Your task to perform on an android device: turn notification dots off Image 0: 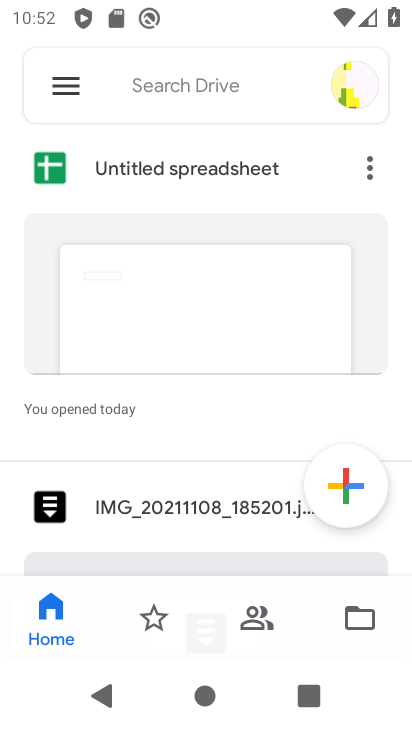
Step 0: click (385, 411)
Your task to perform on an android device: turn notification dots off Image 1: 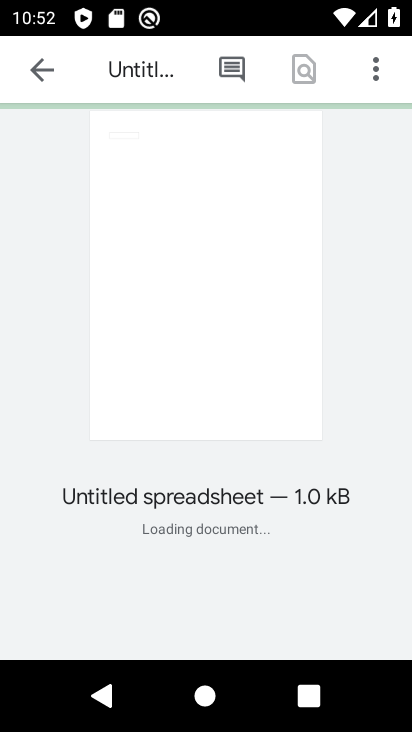
Step 1: press home button
Your task to perform on an android device: turn notification dots off Image 2: 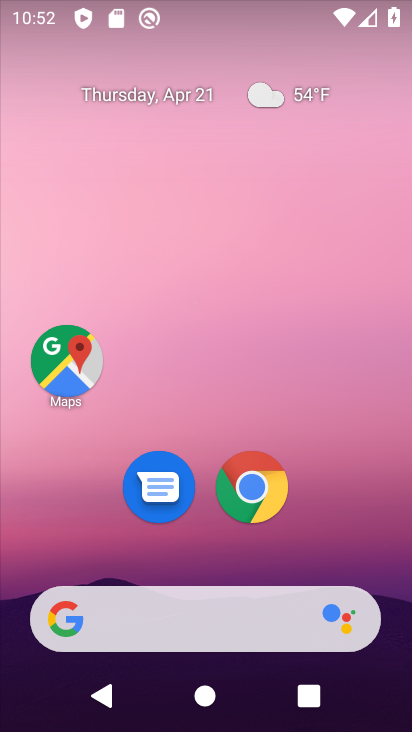
Step 2: drag from (351, 516) to (329, 136)
Your task to perform on an android device: turn notification dots off Image 3: 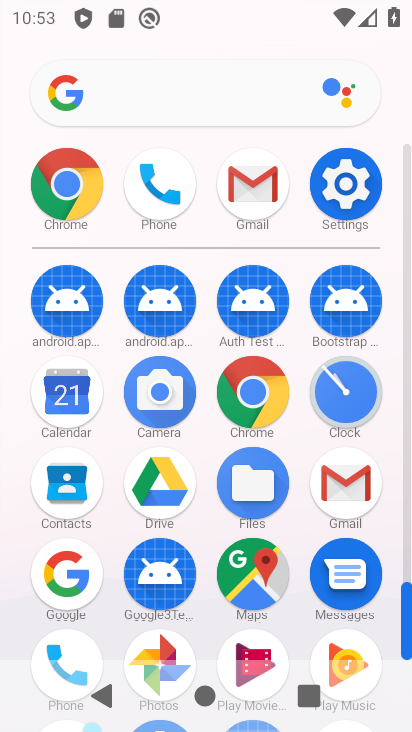
Step 3: click (364, 192)
Your task to perform on an android device: turn notification dots off Image 4: 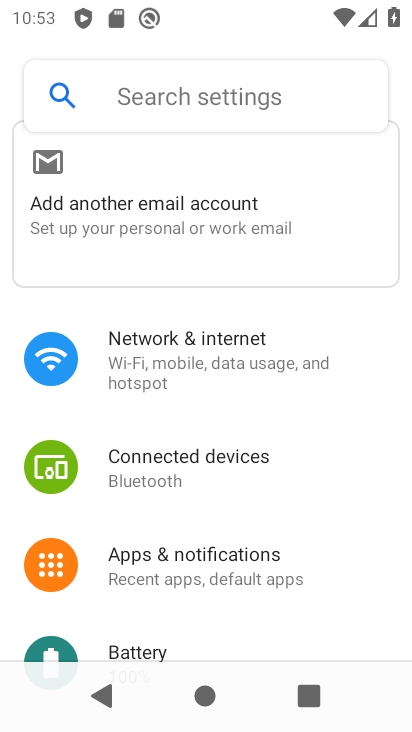
Step 4: drag from (313, 527) to (336, 255)
Your task to perform on an android device: turn notification dots off Image 5: 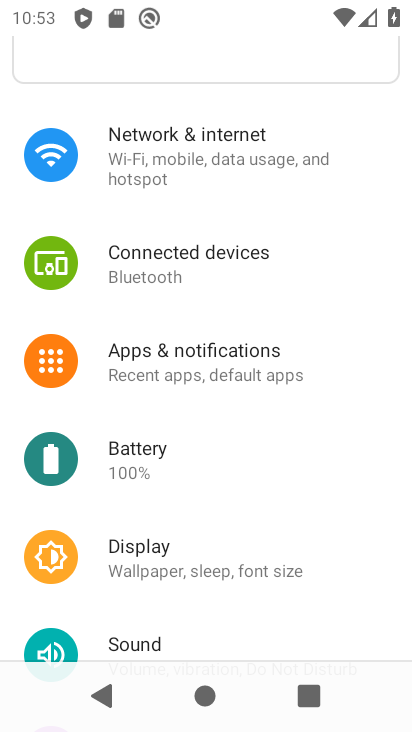
Step 5: click (239, 381)
Your task to perform on an android device: turn notification dots off Image 6: 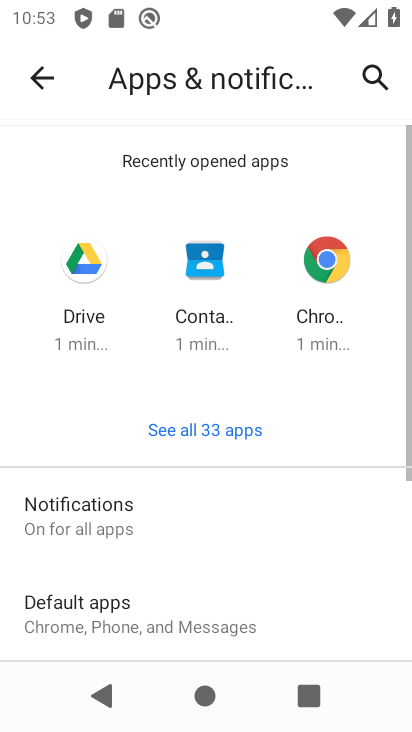
Step 6: drag from (286, 558) to (306, 232)
Your task to perform on an android device: turn notification dots off Image 7: 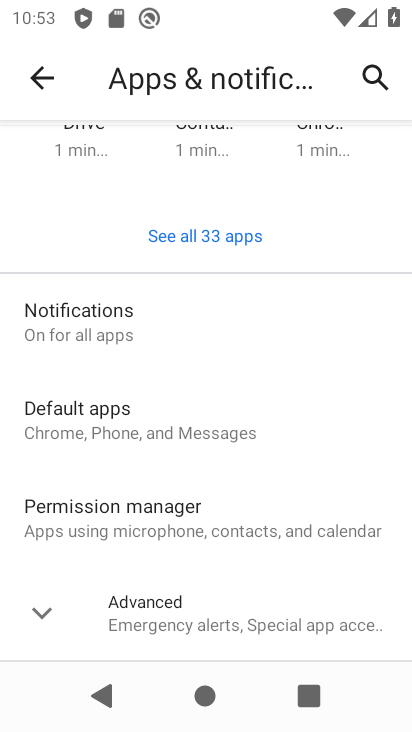
Step 7: click (98, 310)
Your task to perform on an android device: turn notification dots off Image 8: 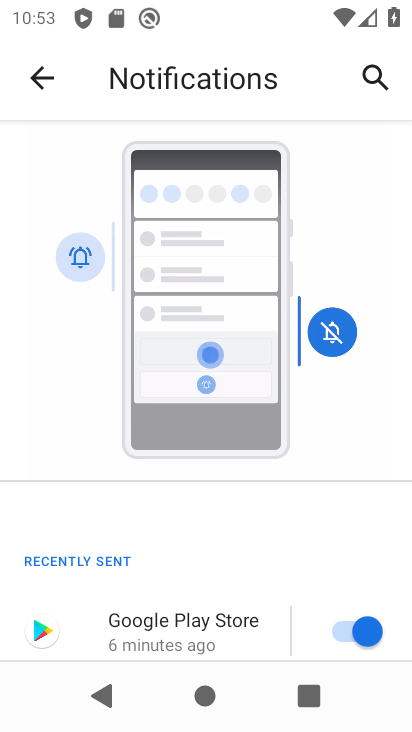
Step 8: drag from (180, 542) to (305, 221)
Your task to perform on an android device: turn notification dots off Image 9: 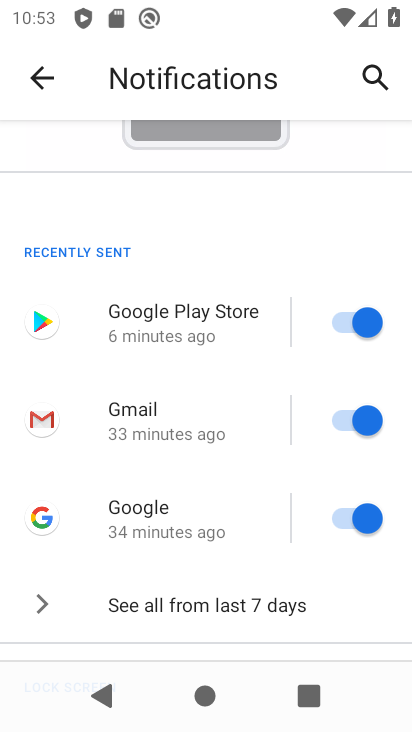
Step 9: drag from (222, 617) to (265, 270)
Your task to perform on an android device: turn notification dots off Image 10: 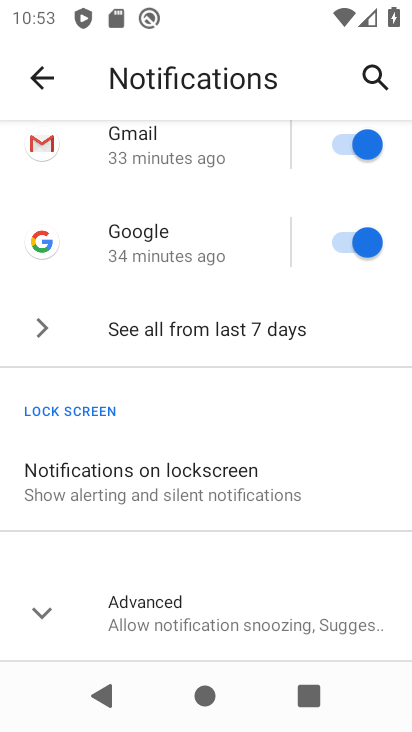
Step 10: drag from (208, 591) to (256, 390)
Your task to perform on an android device: turn notification dots off Image 11: 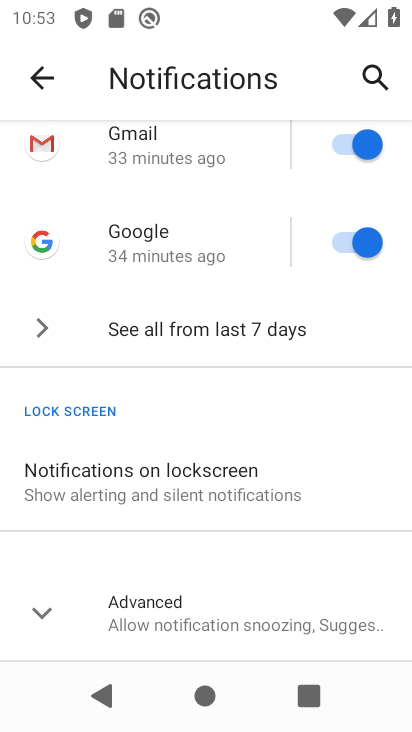
Step 11: click (186, 597)
Your task to perform on an android device: turn notification dots off Image 12: 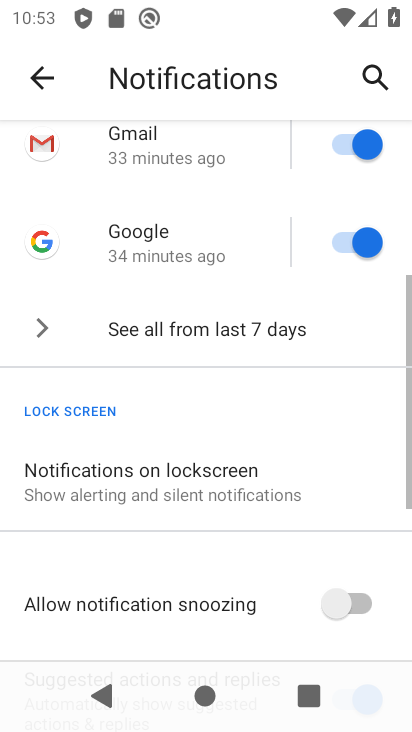
Step 12: drag from (200, 579) to (255, 363)
Your task to perform on an android device: turn notification dots off Image 13: 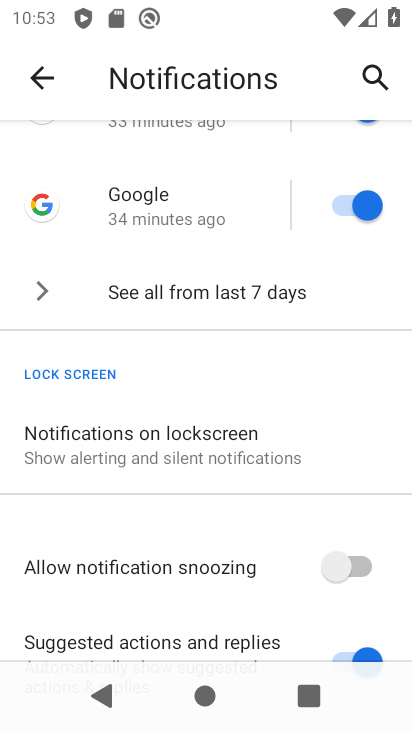
Step 13: drag from (169, 610) to (218, 368)
Your task to perform on an android device: turn notification dots off Image 14: 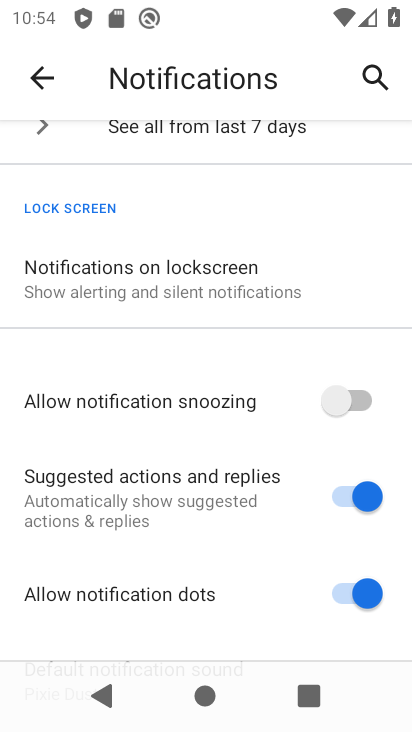
Step 14: click (345, 599)
Your task to perform on an android device: turn notification dots off Image 15: 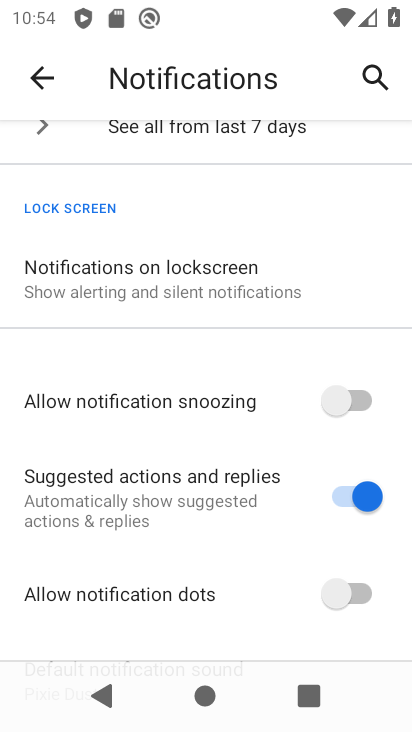
Step 15: task complete